Your task to perform on an android device: toggle wifi Image 0: 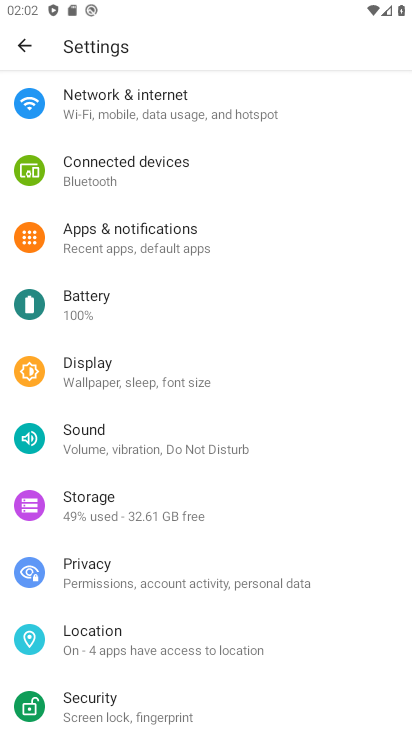
Step 0: click (164, 104)
Your task to perform on an android device: toggle wifi Image 1: 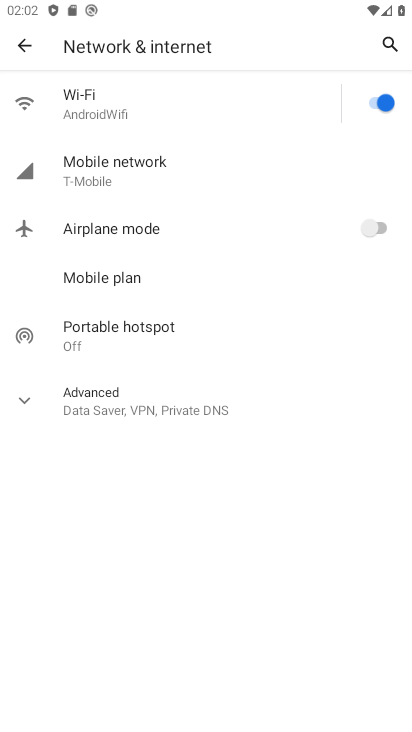
Step 1: click (367, 104)
Your task to perform on an android device: toggle wifi Image 2: 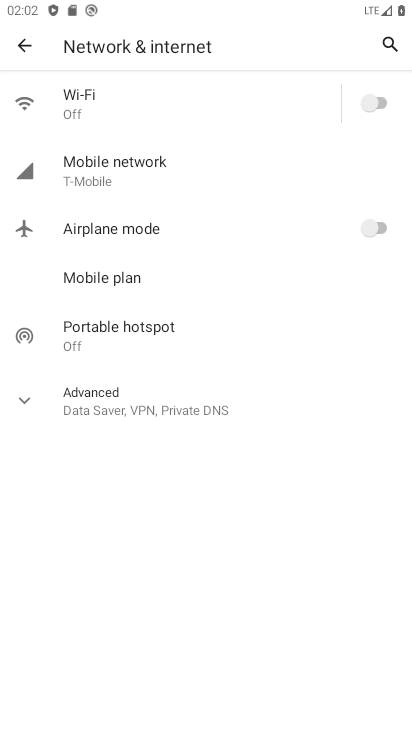
Step 2: task complete